Your task to perform on an android device: Go to Yahoo.com Image 0: 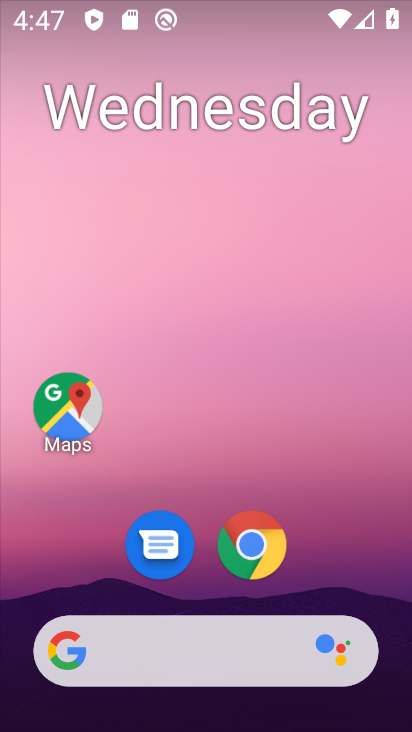
Step 0: click (243, 541)
Your task to perform on an android device: Go to Yahoo.com Image 1: 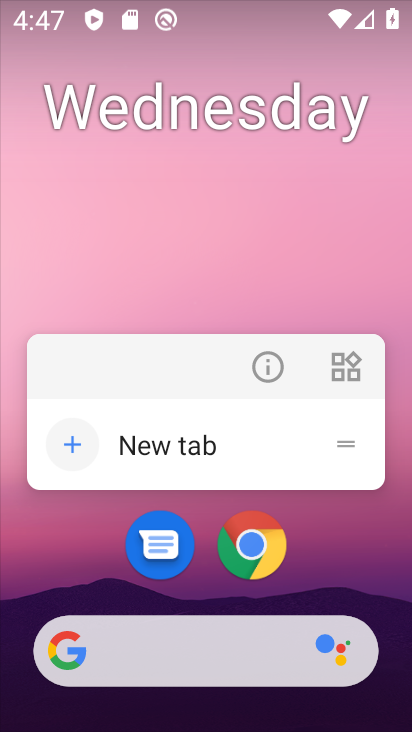
Step 1: click (268, 553)
Your task to perform on an android device: Go to Yahoo.com Image 2: 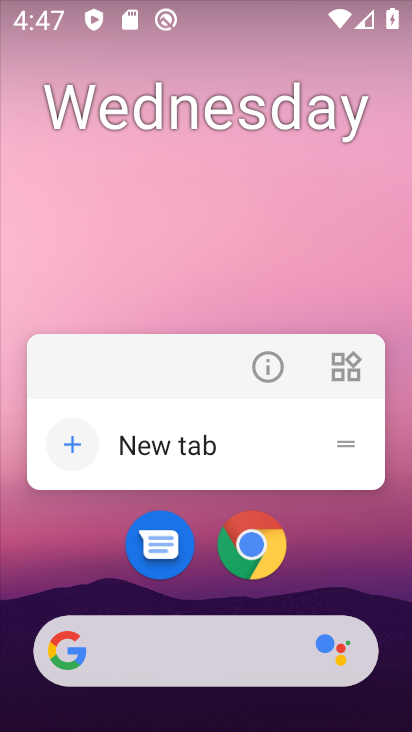
Step 2: click (250, 528)
Your task to perform on an android device: Go to Yahoo.com Image 3: 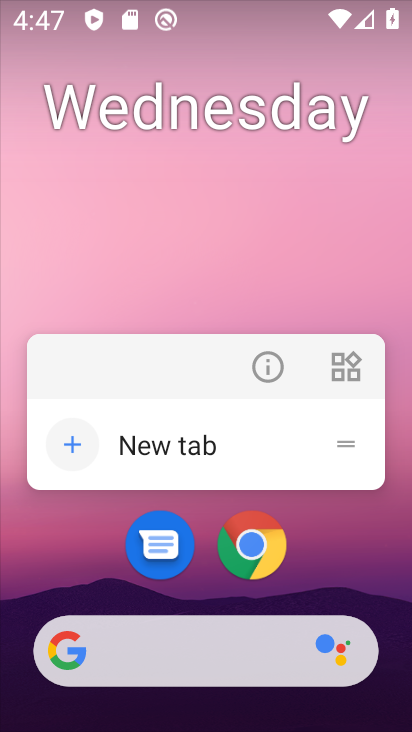
Step 3: click (247, 543)
Your task to perform on an android device: Go to Yahoo.com Image 4: 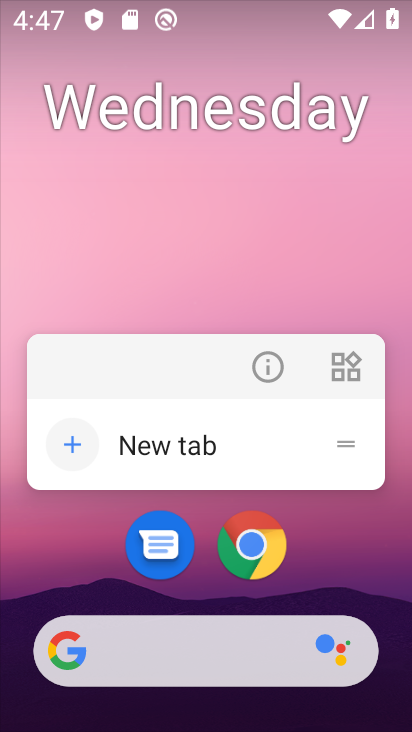
Step 4: click (247, 543)
Your task to perform on an android device: Go to Yahoo.com Image 5: 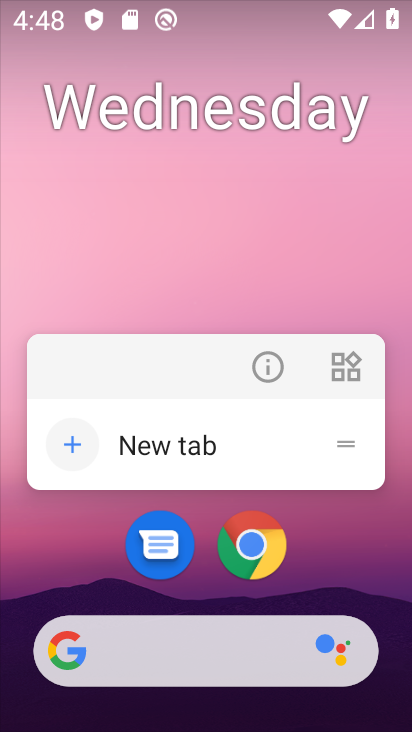
Step 5: click (293, 517)
Your task to perform on an android device: Go to Yahoo.com Image 6: 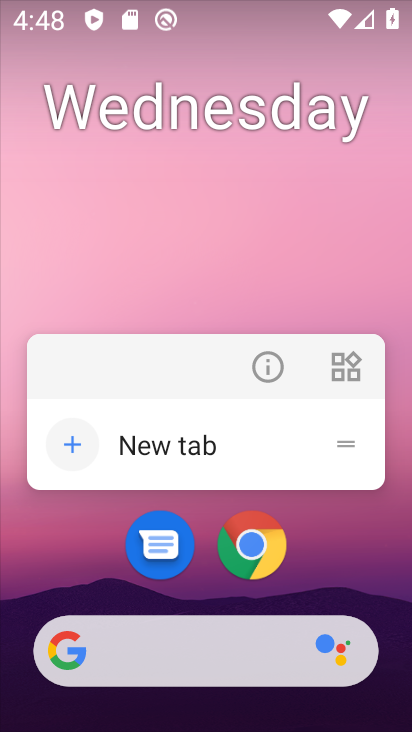
Step 6: click (249, 551)
Your task to perform on an android device: Go to Yahoo.com Image 7: 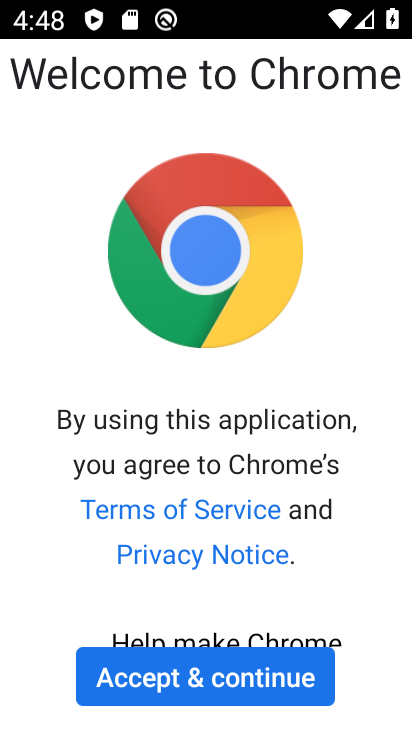
Step 7: click (161, 672)
Your task to perform on an android device: Go to Yahoo.com Image 8: 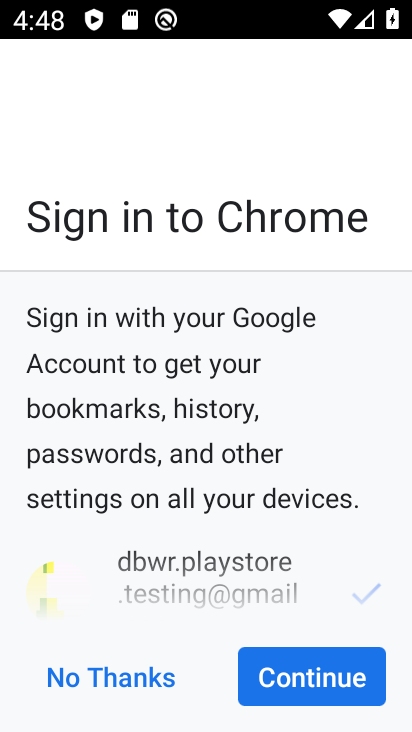
Step 8: click (307, 677)
Your task to perform on an android device: Go to Yahoo.com Image 9: 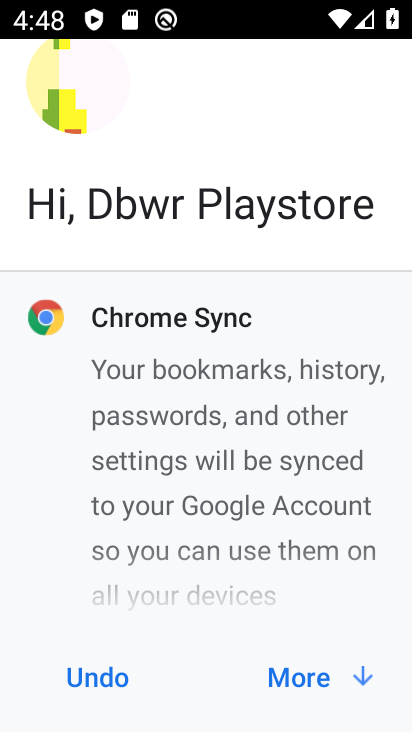
Step 9: click (307, 667)
Your task to perform on an android device: Go to Yahoo.com Image 10: 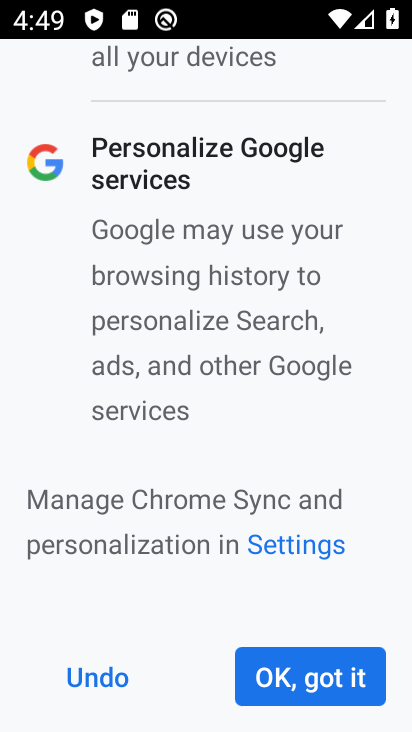
Step 10: click (307, 666)
Your task to perform on an android device: Go to Yahoo.com Image 11: 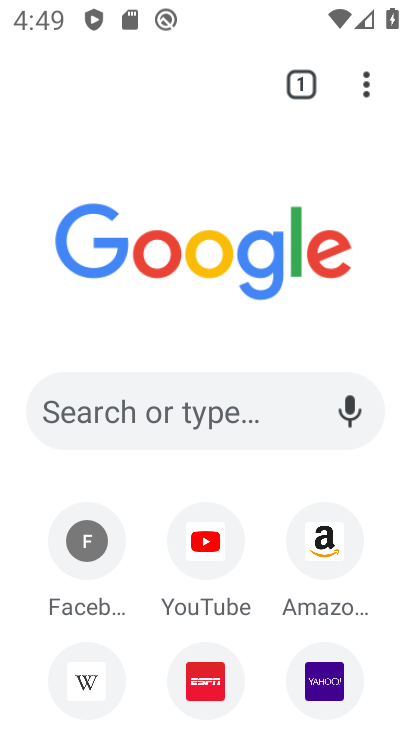
Step 11: click (319, 686)
Your task to perform on an android device: Go to Yahoo.com Image 12: 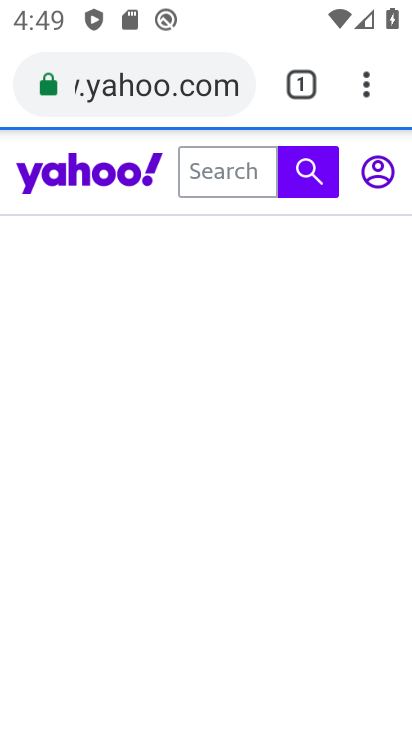
Step 12: task complete